Your task to perform on an android device: change the clock display to show seconds Image 0: 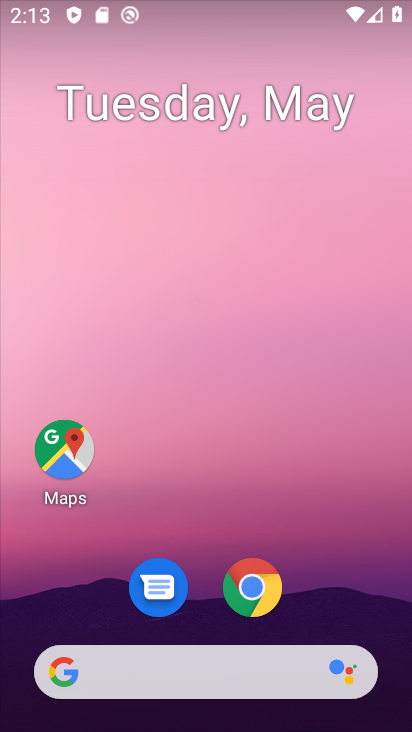
Step 0: drag from (193, 626) to (239, 94)
Your task to perform on an android device: change the clock display to show seconds Image 1: 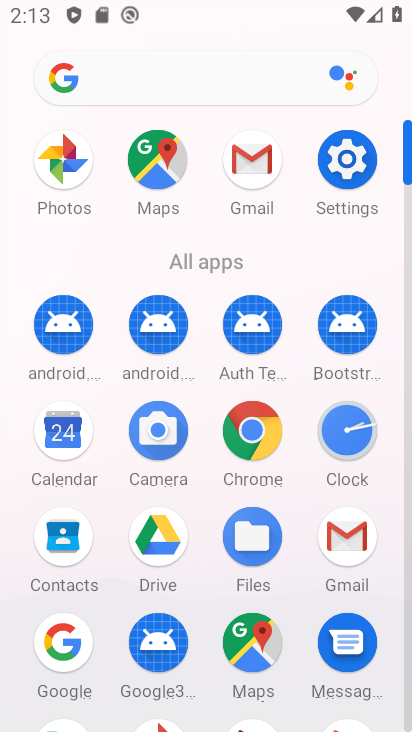
Step 1: click (356, 153)
Your task to perform on an android device: change the clock display to show seconds Image 2: 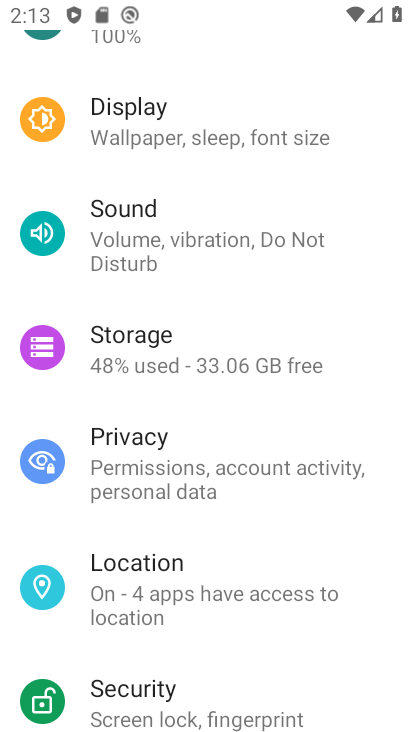
Step 2: click (348, 414)
Your task to perform on an android device: change the clock display to show seconds Image 3: 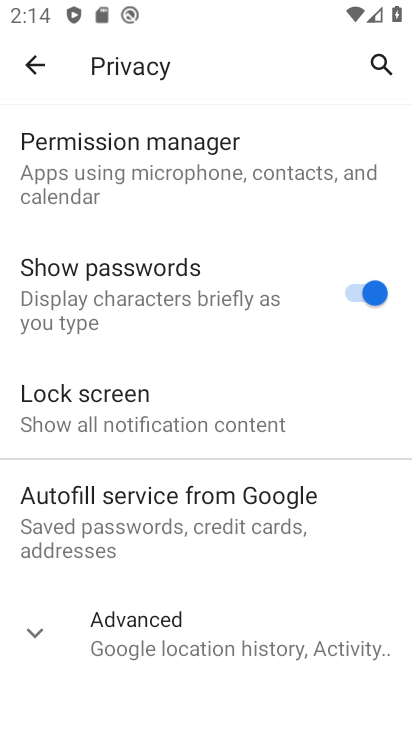
Step 3: task complete